Your task to perform on an android device: turn off notifications settings in the gmail app Image 0: 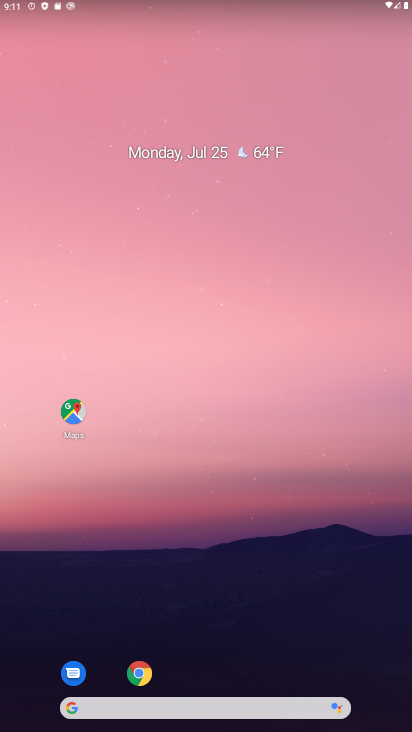
Step 0: drag from (214, 668) to (270, 2)
Your task to perform on an android device: turn off notifications settings in the gmail app Image 1: 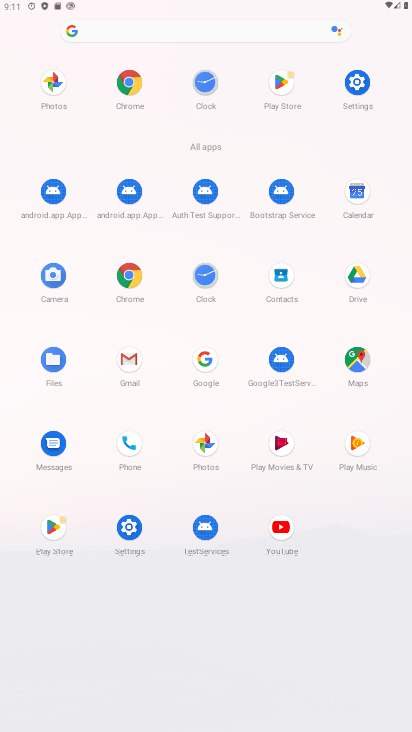
Step 1: click (126, 358)
Your task to perform on an android device: turn off notifications settings in the gmail app Image 2: 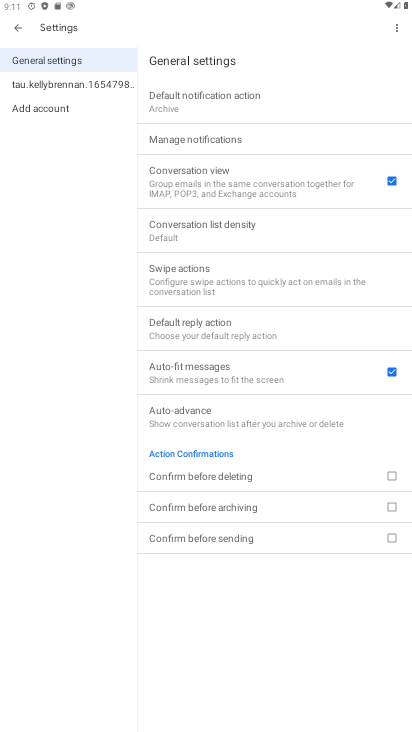
Step 2: click (170, 134)
Your task to perform on an android device: turn off notifications settings in the gmail app Image 3: 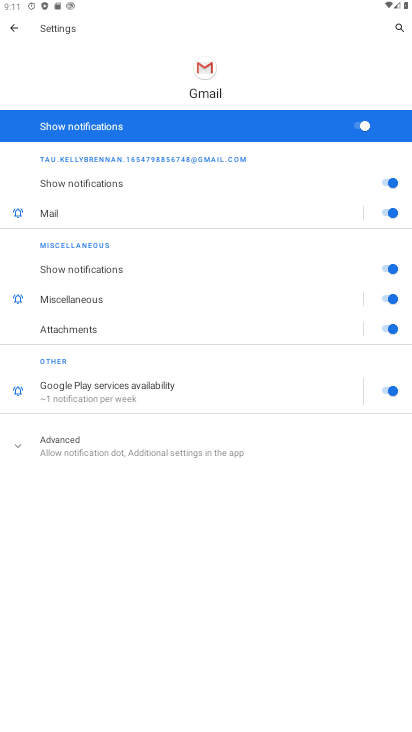
Step 3: click (364, 119)
Your task to perform on an android device: turn off notifications settings in the gmail app Image 4: 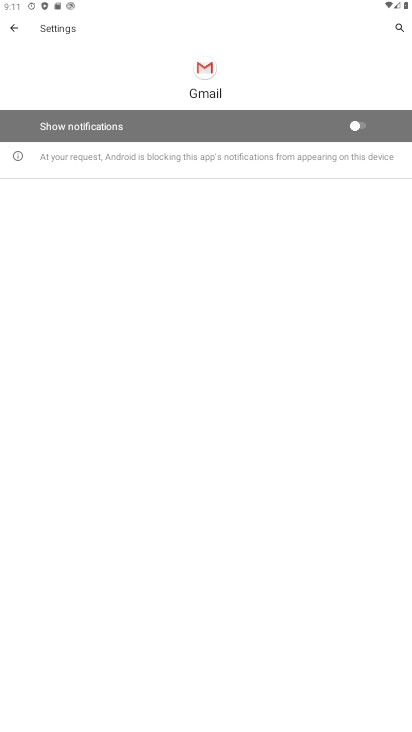
Step 4: task complete